Your task to perform on an android device: manage bookmarks in the chrome app Image 0: 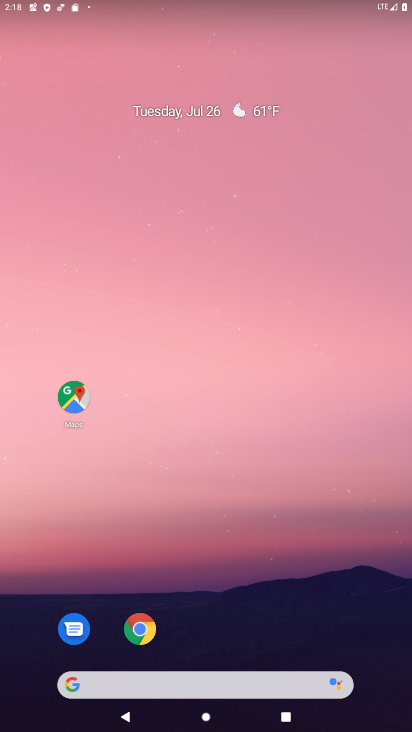
Step 0: click (137, 632)
Your task to perform on an android device: manage bookmarks in the chrome app Image 1: 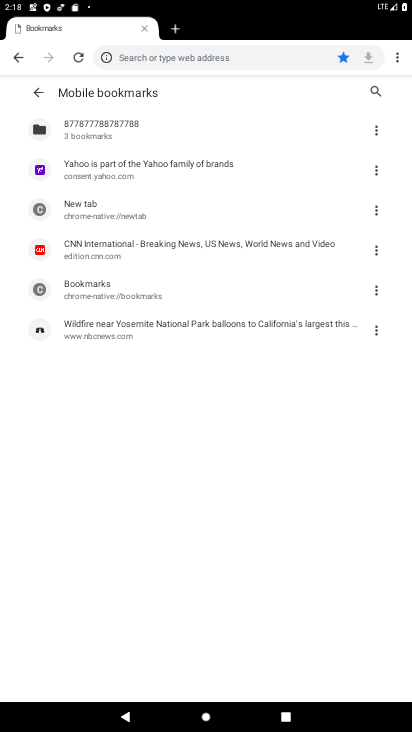
Step 1: click (376, 123)
Your task to perform on an android device: manage bookmarks in the chrome app Image 2: 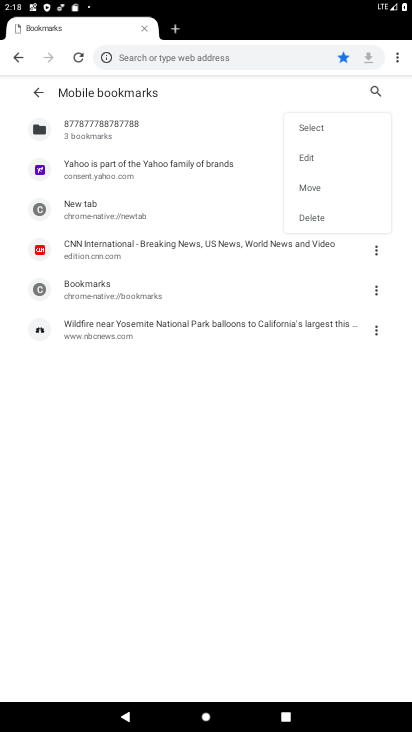
Step 2: click (309, 151)
Your task to perform on an android device: manage bookmarks in the chrome app Image 3: 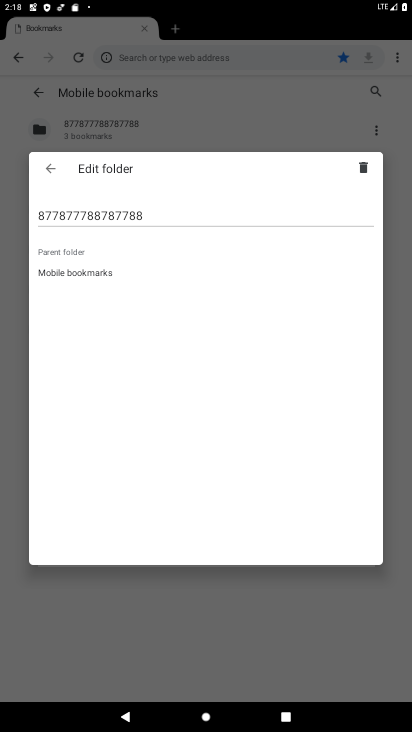
Step 3: task complete